Your task to perform on an android device: Go to Yahoo.com Image 0: 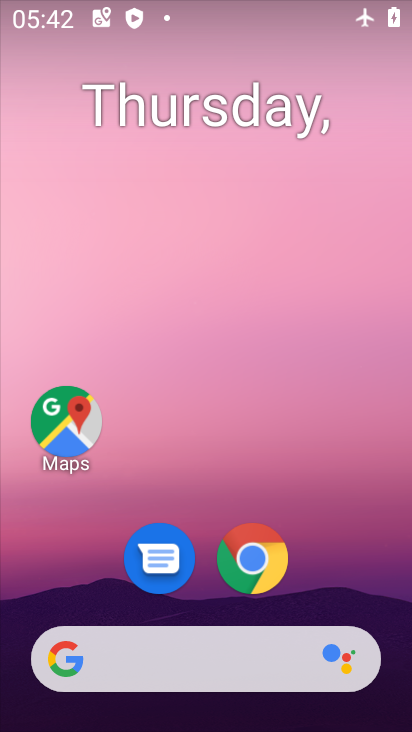
Step 0: click (250, 575)
Your task to perform on an android device: Go to Yahoo.com Image 1: 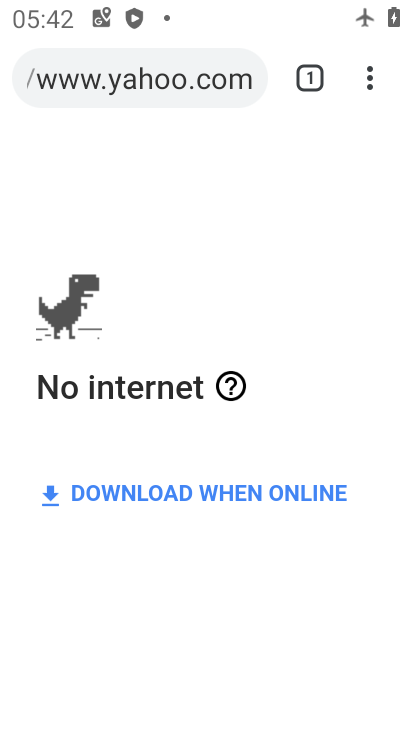
Step 1: press home button
Your task to perform on an android device: Go to Yahoo.com Image 2: 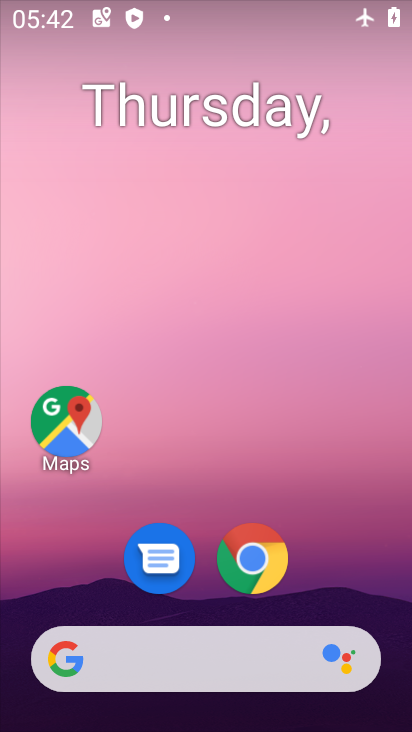
Step 2: drag from (300, 550) to (273, 135)
Your task to perform on an android device: Go to Yahoo.com Image 3: 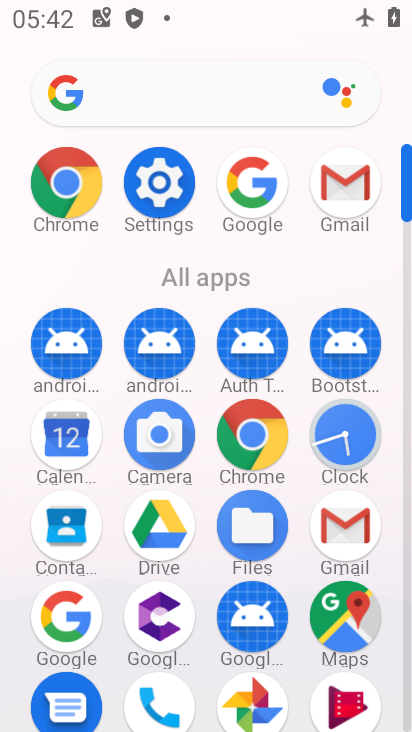
Step 3: click (174, 193)
Your task to perform on an android device: Go to Yahoo.com Image 4: 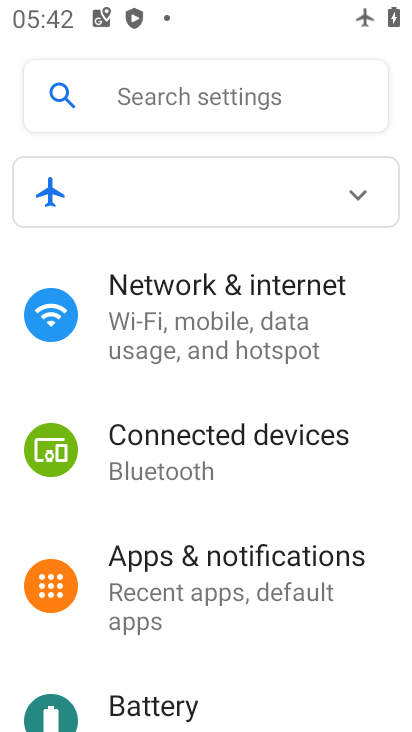
Step 4: click (358, 200)
Your task to perform on an android device: Go to Yahoo.com Image 5: 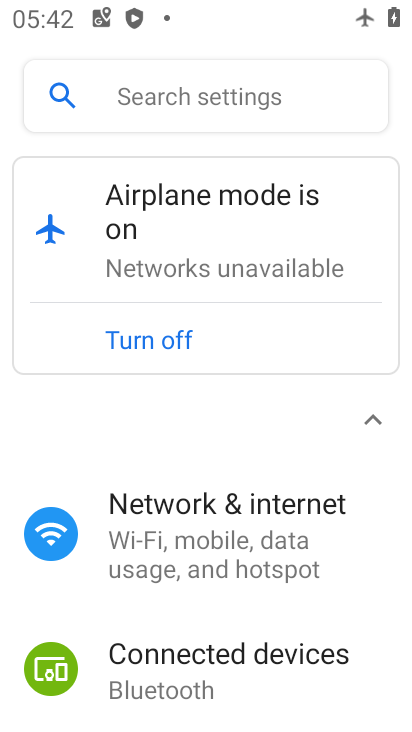
Step 5: click (177, 343)
Your task to perform on an android device: Go to Yahoo.com Image 6: 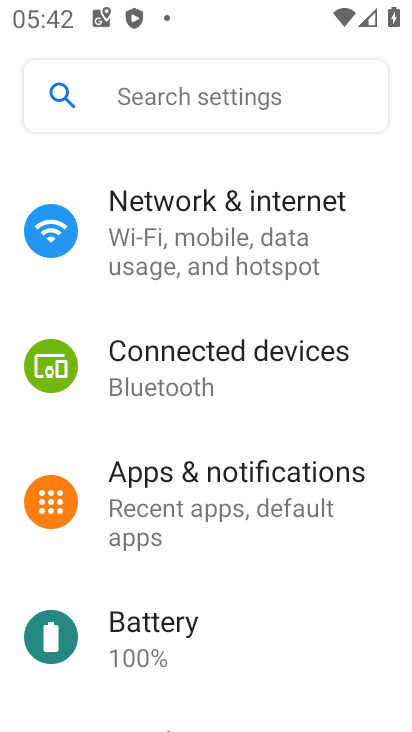
Step 6: press home button
Your task to perform on an android device: Go to Yahoo.com Image 7: 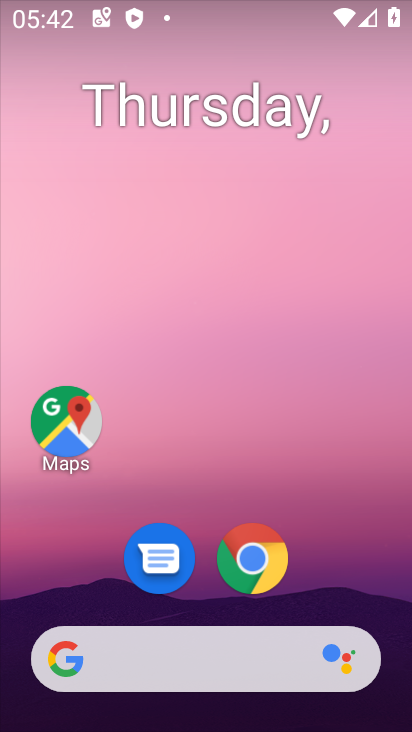
Step 7: click (259, 584)
Your task to perform on an android device: Go to Yahoo.com Image 8: 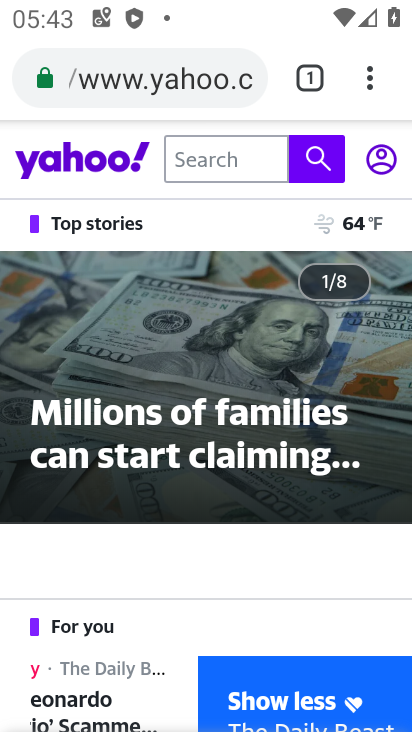
Step 8: task complete